Your task to perform on an android device: change keyboard looks Image 0: 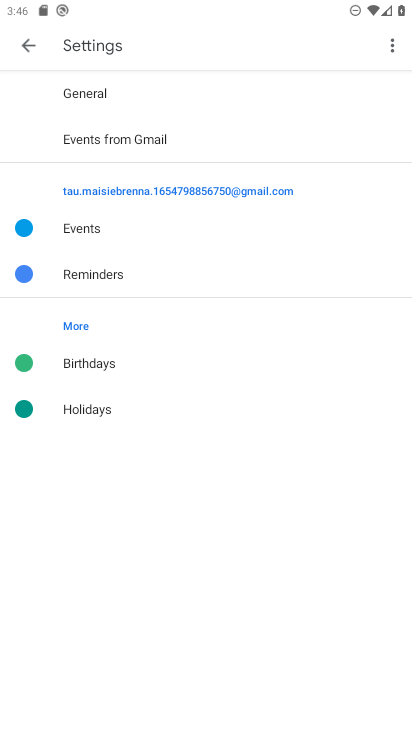
Step 0: press back button
Your task to perform on an android device: change keyboard looks Image 1: 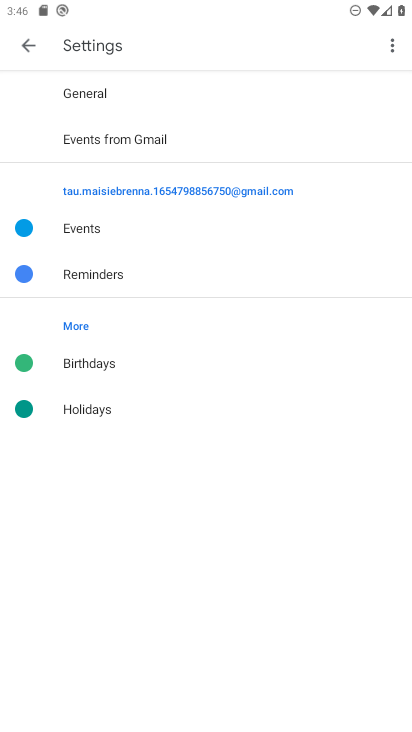
Step 1: press home button
Your task to perform on an android device: change keyboard looks Image 2: 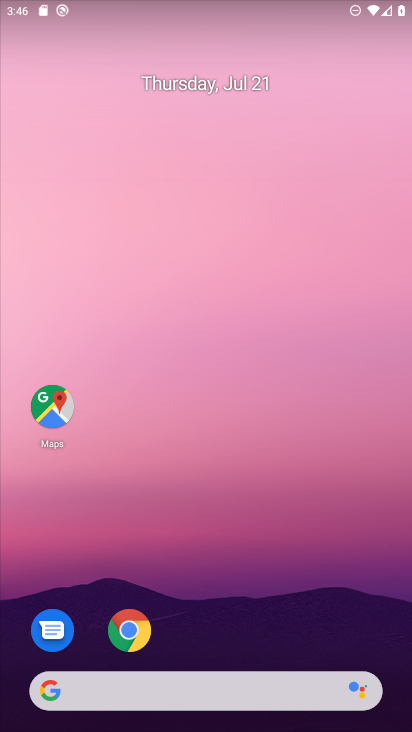
Step 2: drag from (225, 651) to (376, 41)
Your task to perform on an android device: change keyboard looks Image 3: 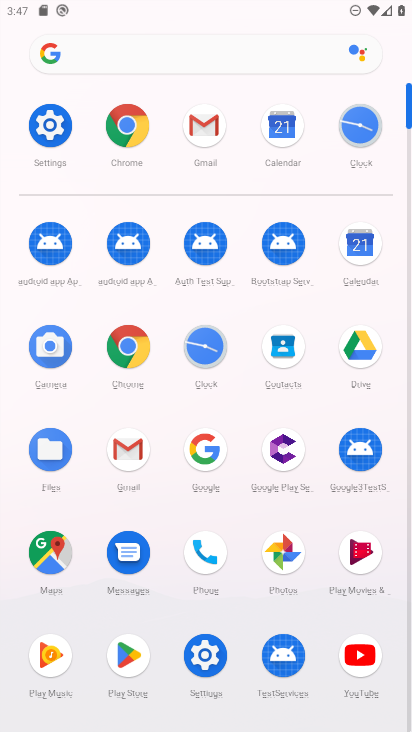
Step 3: click (204, 651)
Your task to perform on an android device: change keyboard looks Image 4: 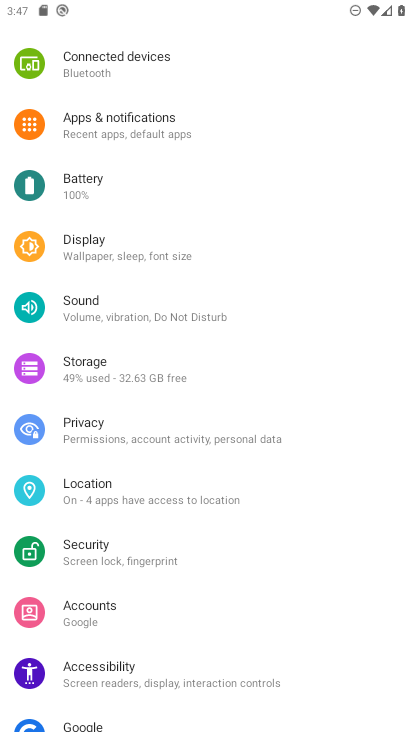
Step 4: drag from (148, 664) to (99, 164)
Your task to perform on an android device: change keyboard looks Image 5: 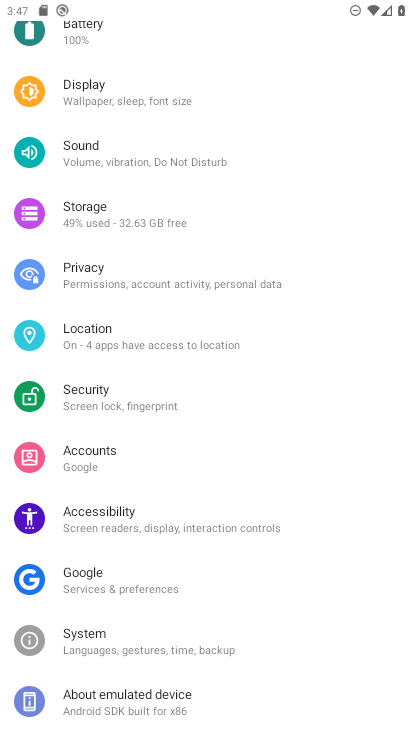
Step 5: click (57, 642)
Your task to perform on an android device: change keyboard looks Image 6: 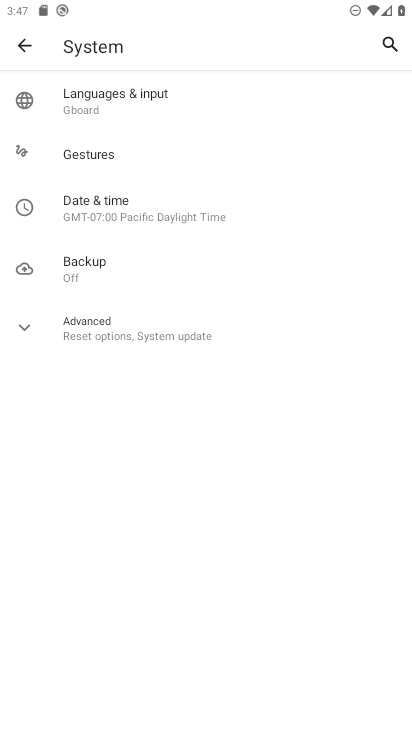
Step 6: click (83, 104)
Your task to perform on an android device: change keyboard looks Image 7: 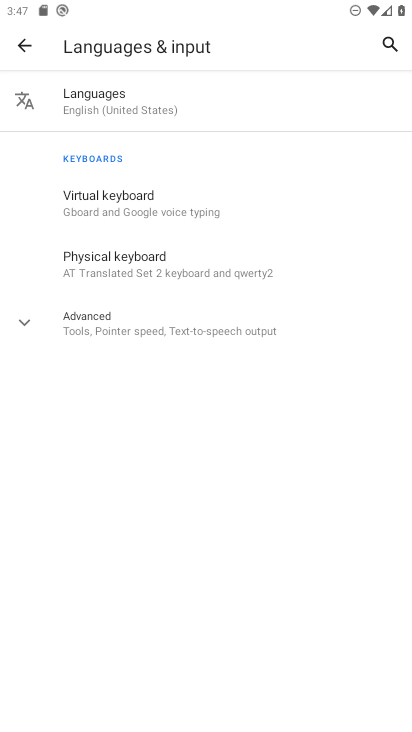
Step 7: click (114, 191)
Your task to perform on an android device: change keyboard looks Image 8: 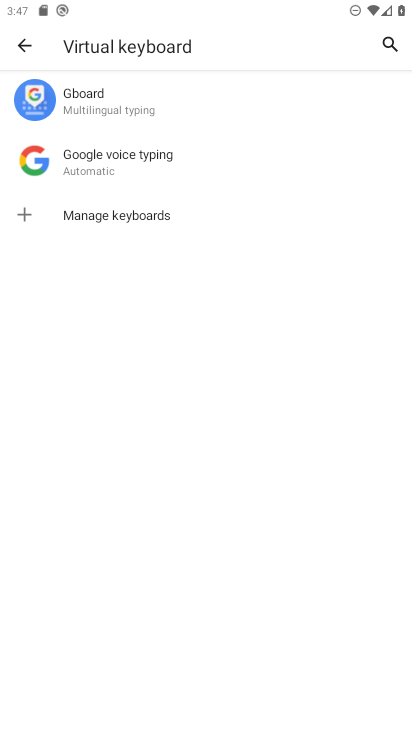
Step 8: click (106, 99)
Your task to perform on an android device: change keyboard looks Image 9: 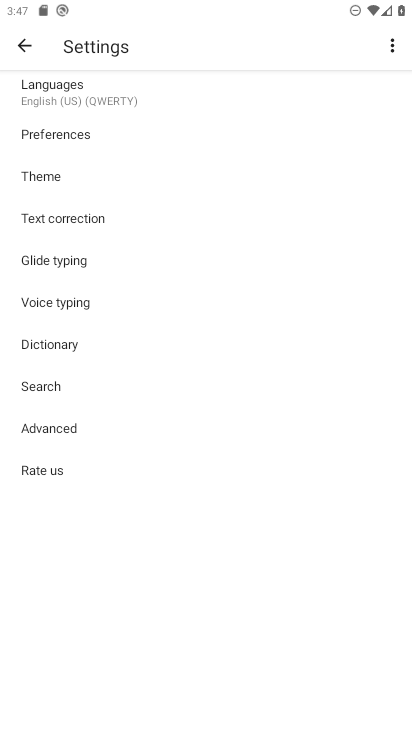
Step 9: click (75, 184)
Your task to perform on an android device: change keyboard looks Image 10: 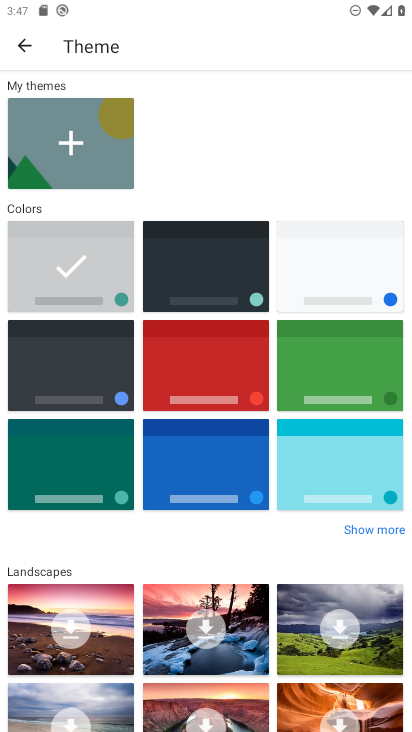
Step 10: click (214, 267)
Your task to perform on an android device: change keyboard looks Image 11: 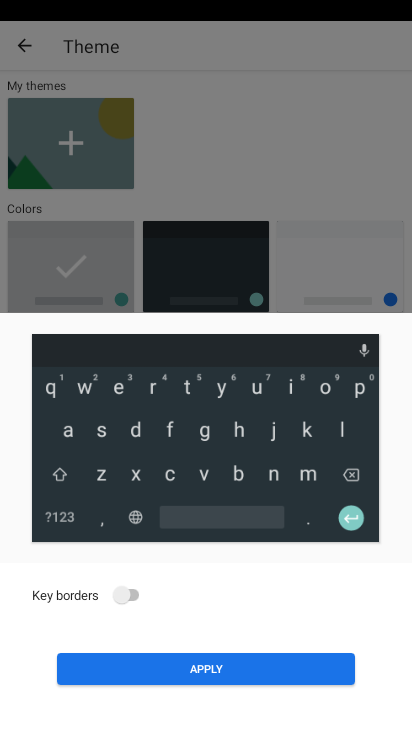
Step 11: click (263, 662)
Your task to perform on an android device: change keyboard looks Image 12: 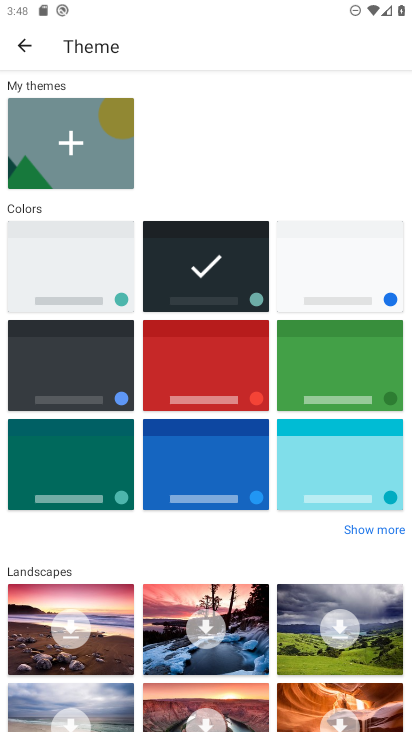
Step 12: task complete